Your task to perform on an android device: Search for vegetarian restaurants on Maps Image 0: 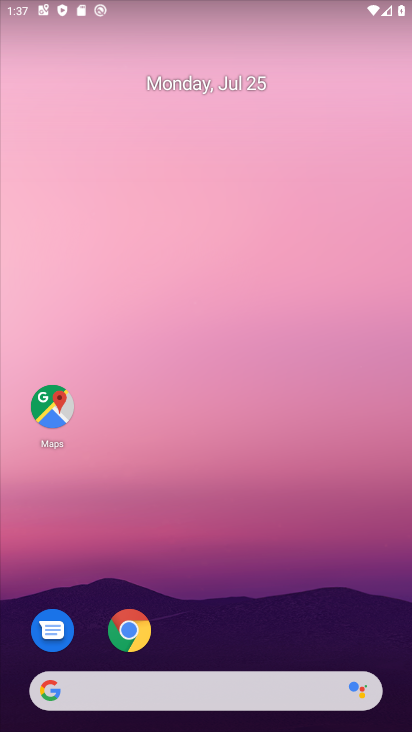
Step 0: click (74, 428)
Your task to perform on an android device: Search for vegetarian restaurants on Maps Image 1: 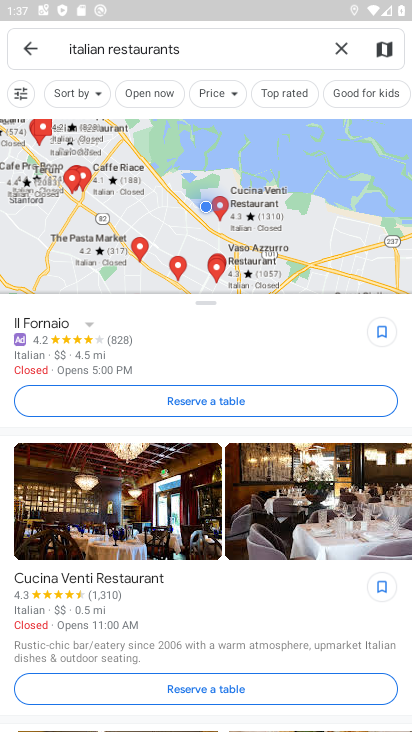
Step 1: click (328, 47)
Your task to perform on an android device: Search for vegetarian restaurants on Maps Image 2: 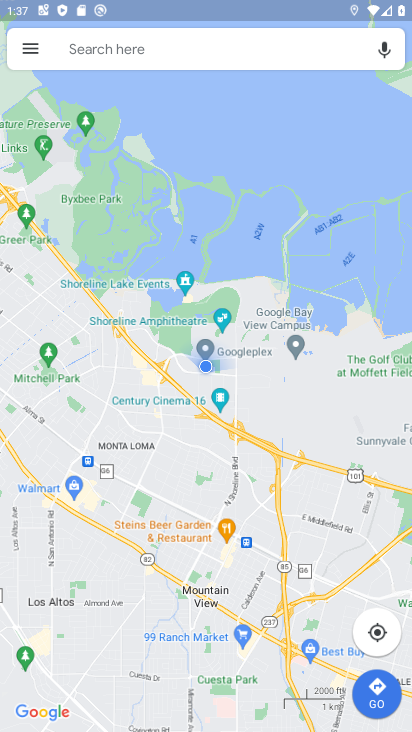
Step 2: click (277, 47)
Your task to perform on an android device: Search for vegetarian restaurants on Maps Image 3: 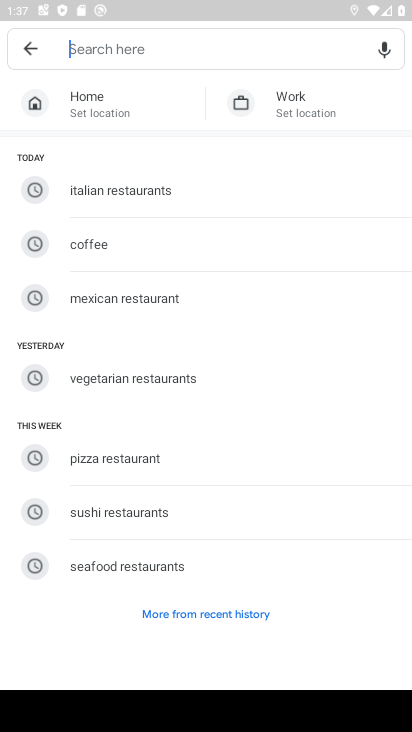
Step 3: click (184, 389)
Your task to perform on an android device: Search for vegetarian restaurants on Maps Image 4: 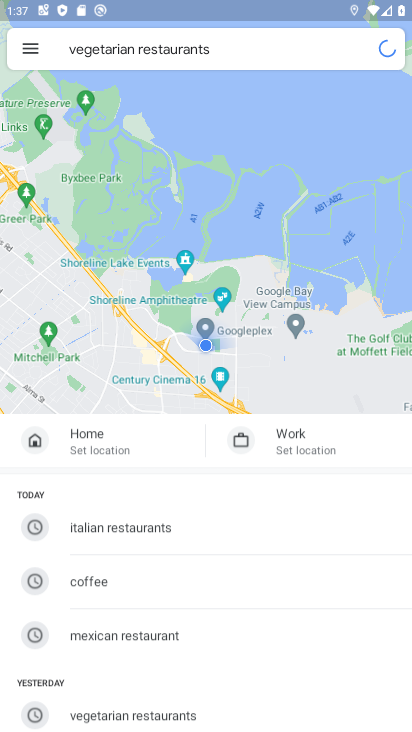
Step 4: task complete